Your task to perform on an android device: turn on sleep mode Image 0: 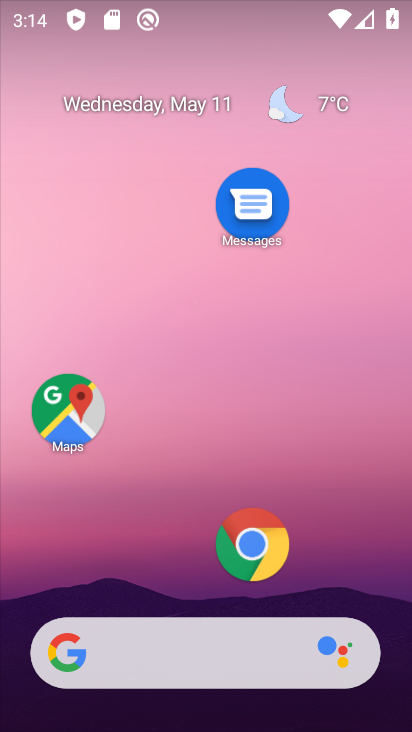
Step 0: drag from (176, 582) to (280, 17)
Your task to perform on an android device: turn on sleep mode Image 1: 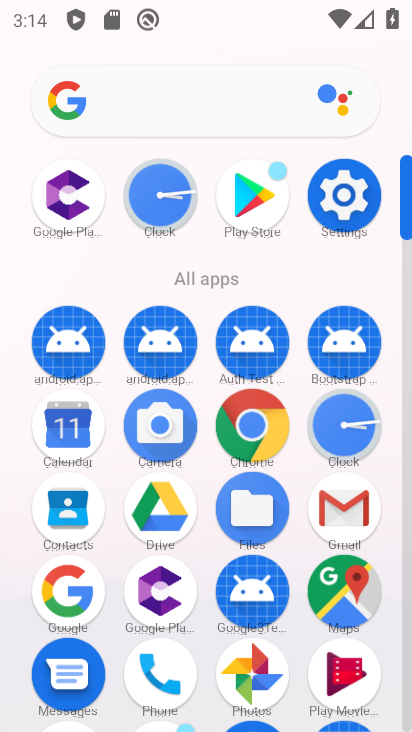
Step 1: click (337, 189)
Your task to perform on an android device: turn on sleep mode Image 2: 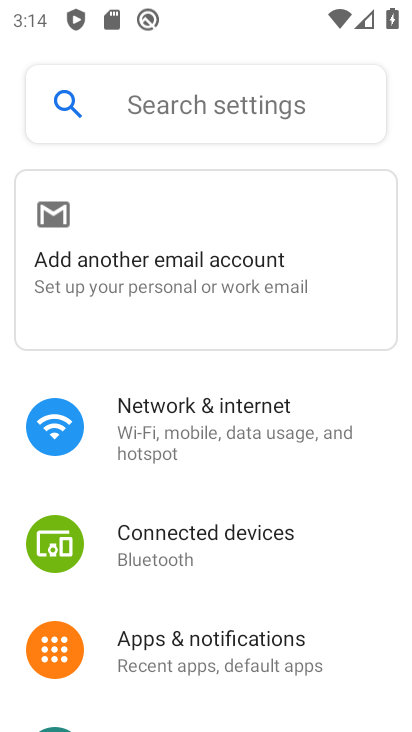
Step 2: click (185, 105)
Your task to perform on an android device: turn on sleep mode Image 3: 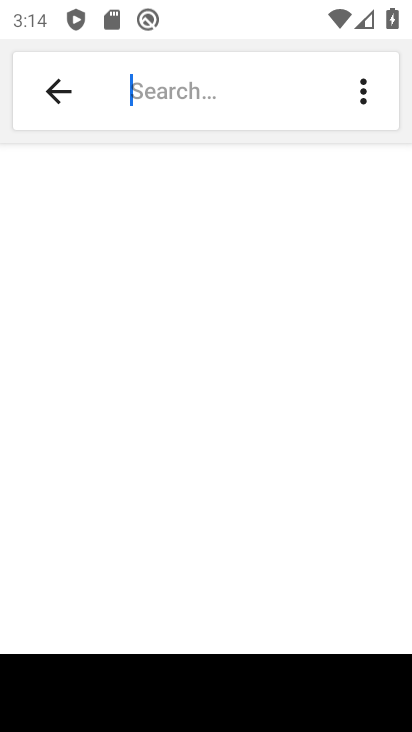
Step 3: type "sleep mode"
Your task to perform on an android device: turn on sleep mode Image 4: 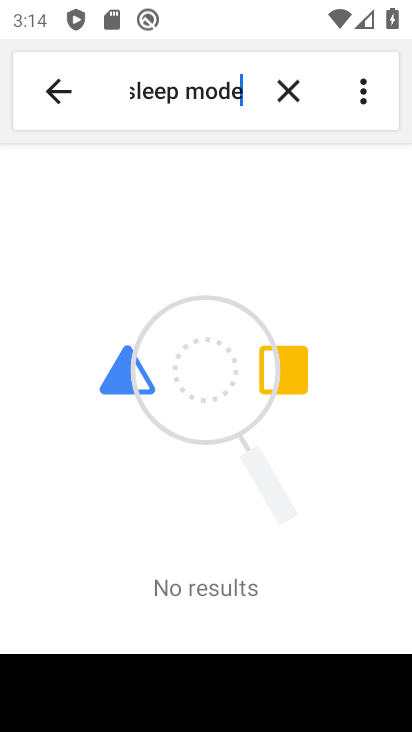
Step 4: task complete